Your task to perform on an android device: toggle pop-ups in chrome Image 0: 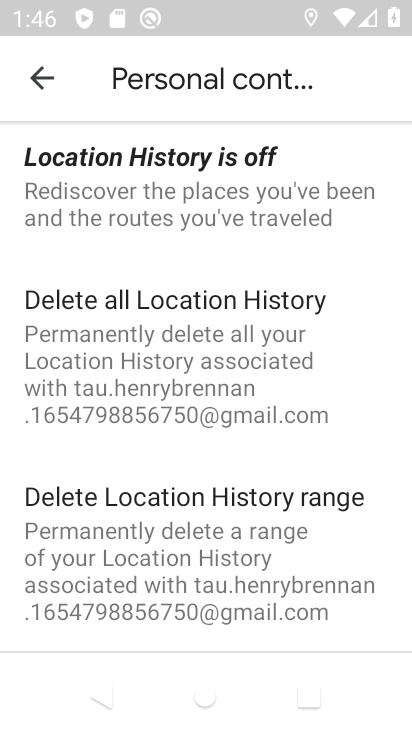
Step 0: press home button
Your task to perform on an android device: toggle pop-ups in chrome Image 1: 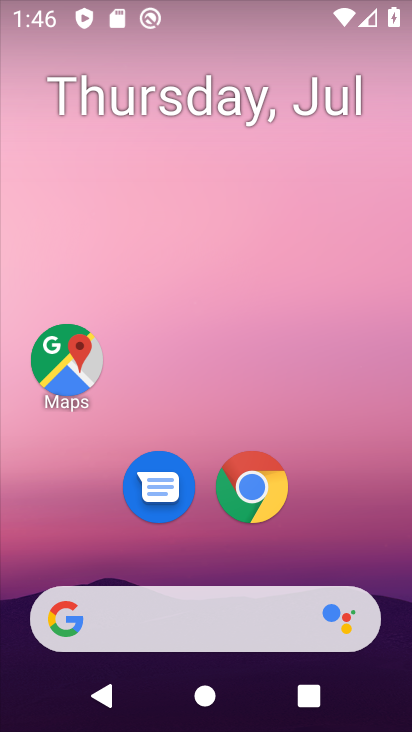
Step 1: drag from (357, 554) to (395, 99)
Your task to perform on an android device: toggle pop-ups in chrome Image 2: 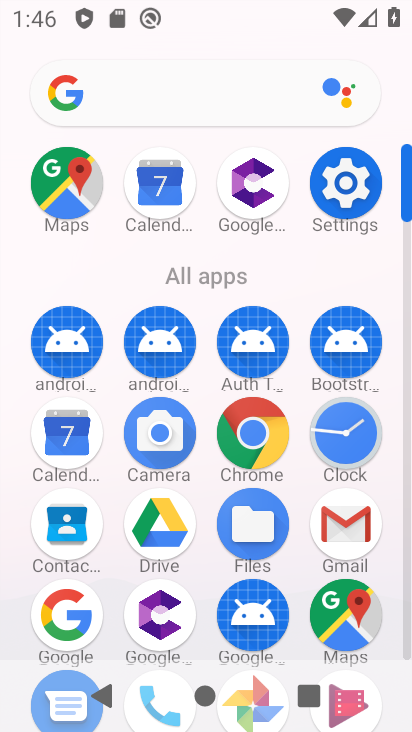
Step 2: click (257, 437)
Your task to perform on an android device: toggle pop-ups in chrome Image 3: 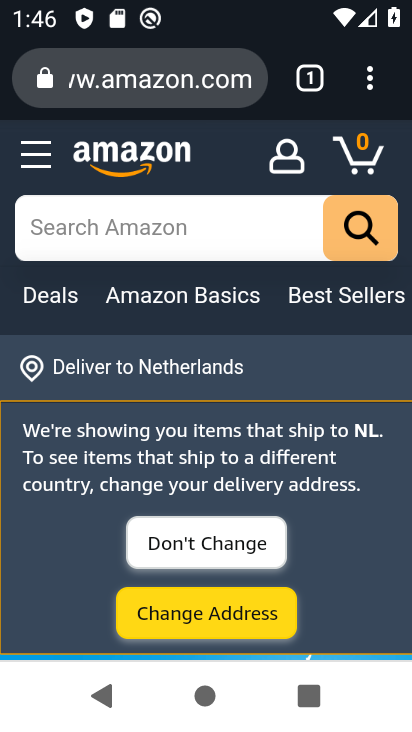
Step 3: click (372, 84)
Your task to perform on an android device: toggle pop-ups in chrome Image 4: 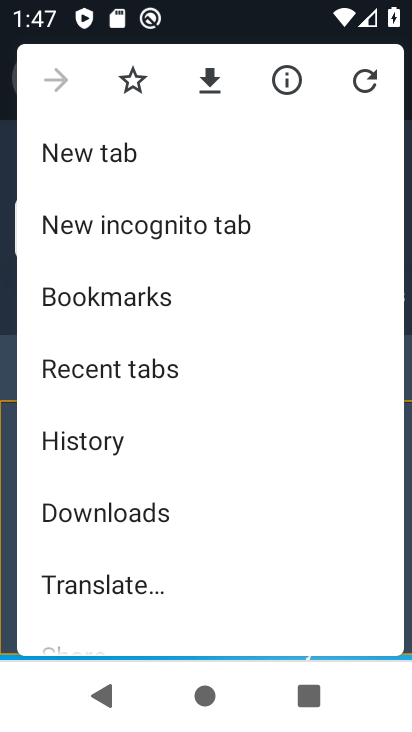
Step 4: drag from (340, 497) to (342, 414)
Your task to perform on an android device: toggle pop-ups in chrome Image 5: 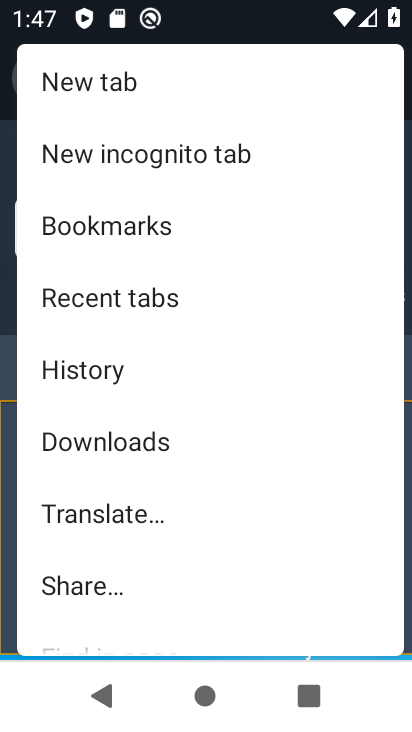
Step 5: drag from (335, 528) to (340, 446)
Your task to perform on an android device: toggle pop-ups in chrome Image 6: 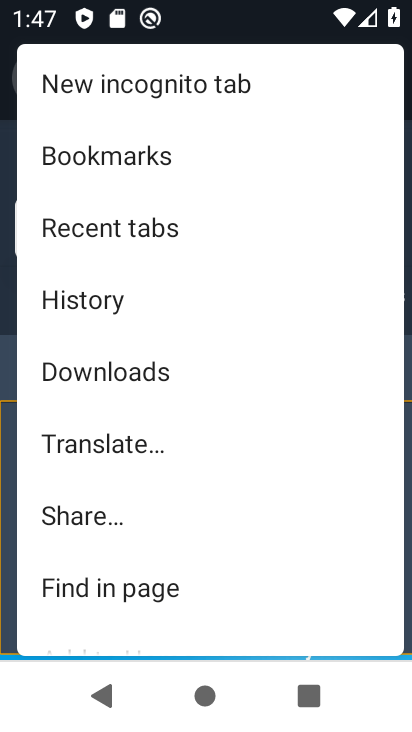
Step 6: drag from (278, 540) to (290, 468)
Your task to perform on an android device: toggle pop-ups in chrome Image 7: 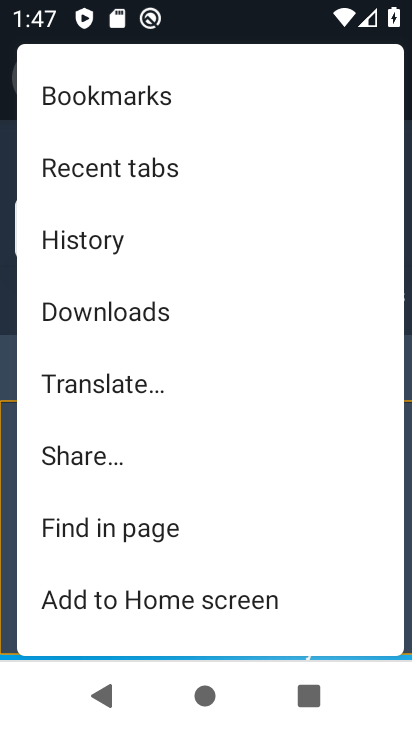
Step 7: drag from (326, 563) to (326, 462)
Your task to perform on an android device: toggle pop-ups in chrome Image 8: 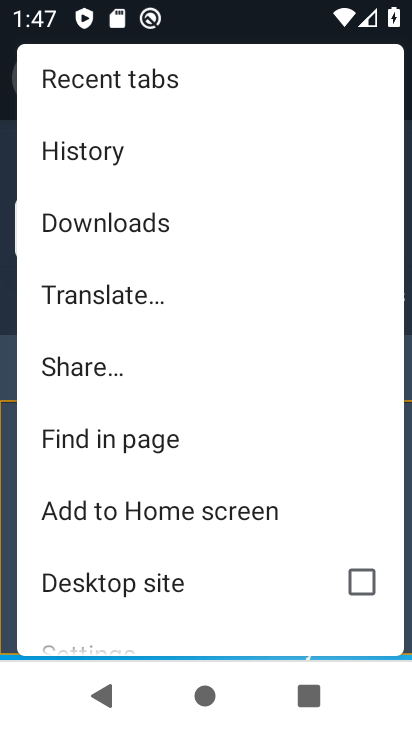
Step 8: drag from (306, 535) to (307, 400)
Your task to perform on an android device: toggle pop-ups in chrome Image 9: 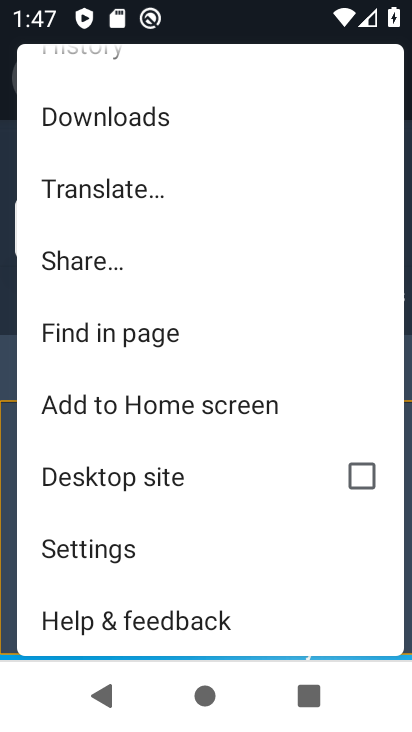
Step 9: click (126, 552)
Your task to perform on an android device: toggle pop-ups in chrome Image 10: 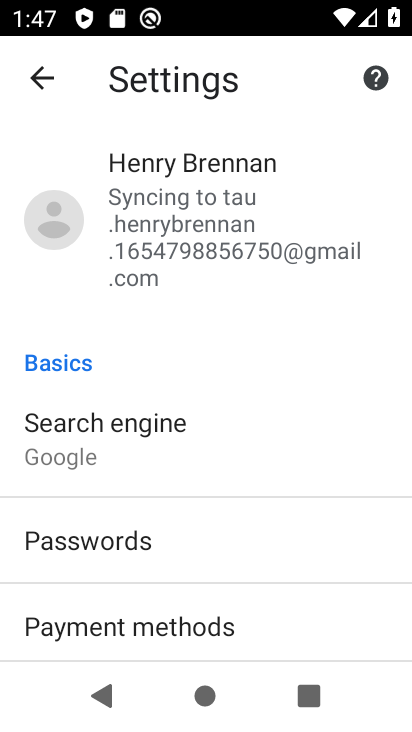
Step 10: drag from (274, 497) to (282, 369)
Your task to perform on an android device: toggle pop-ups in chrome Image 11: 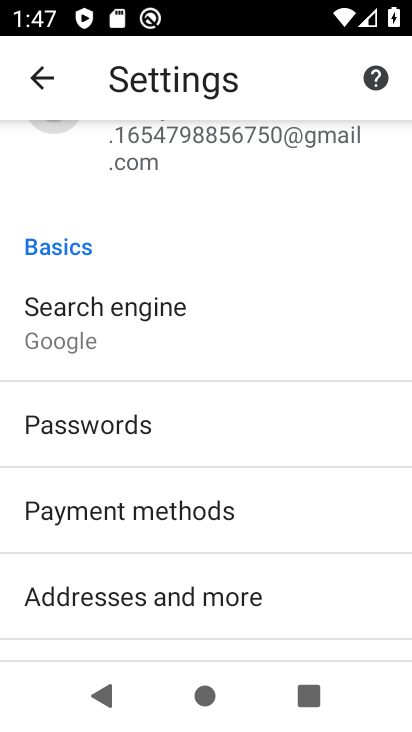
Step 11: drag from (333, 504) to (335, 423)
Your task to perform on an android device: toggle pop-ups in chrome Image 12: 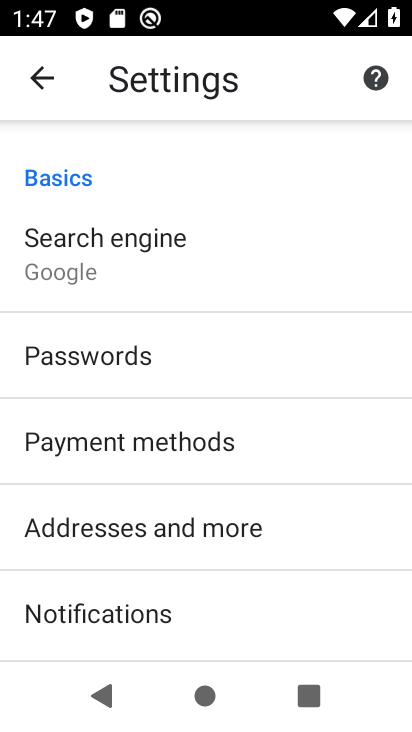
Step 12: drag from (328, 519) to (334, 421)
Your task to perform on an android device: toggle pop-ups in chrome Image 13: 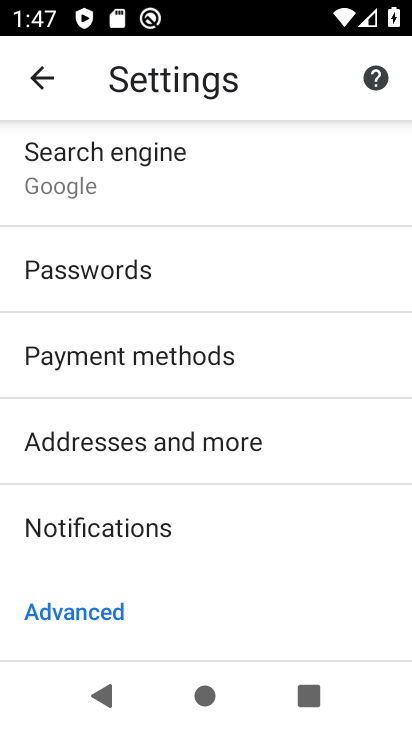
Step 13: drag from (336, 512) to (334, 390)
Your task to perform on an android device: toggle pop-ups in chrome Image 14: 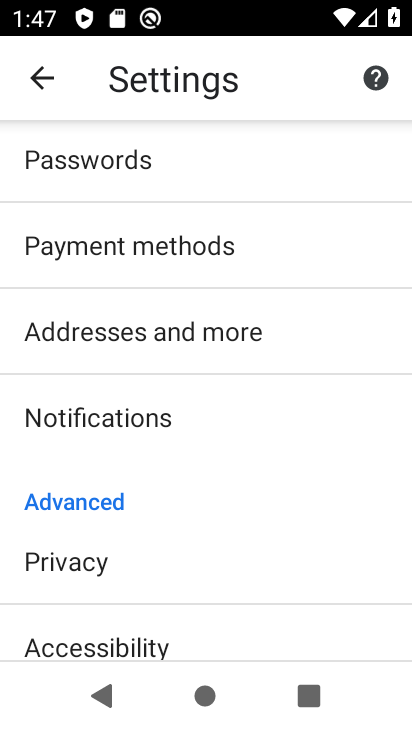
Step 14: drag from (337, 491) to (336, 344)
Your task to perform on an android device: toggle pop-ups in chrome Image 15: 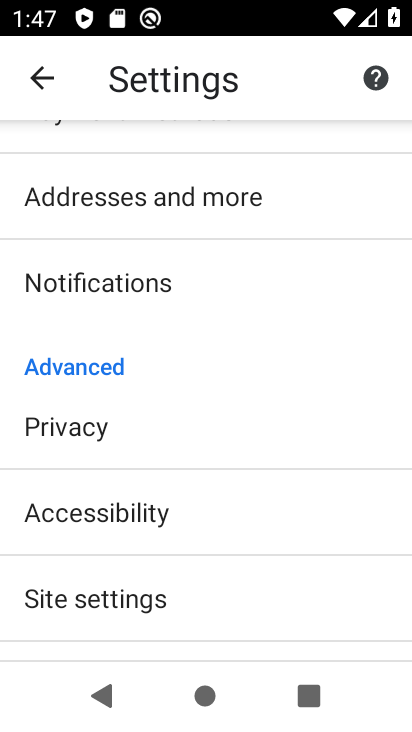
Step 15: drag from (327, 497) to (328, 277)
Your task to perform on an android device: toggle pop-ups in chrome Image 16: 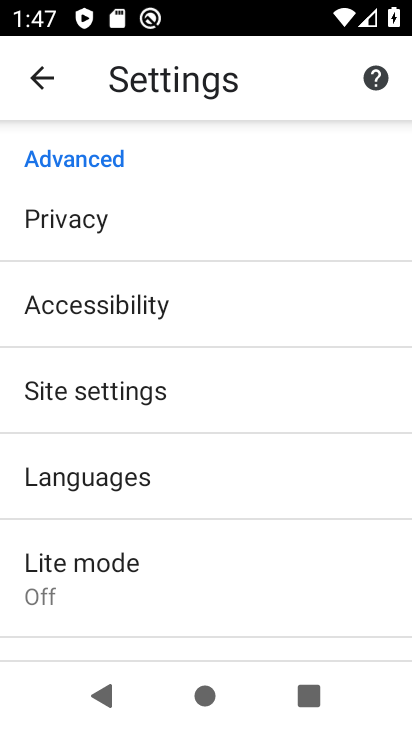
Step 16: click (263, 386)
Your task to perform on an android device: toggle pop-ups in chrome Image 17: 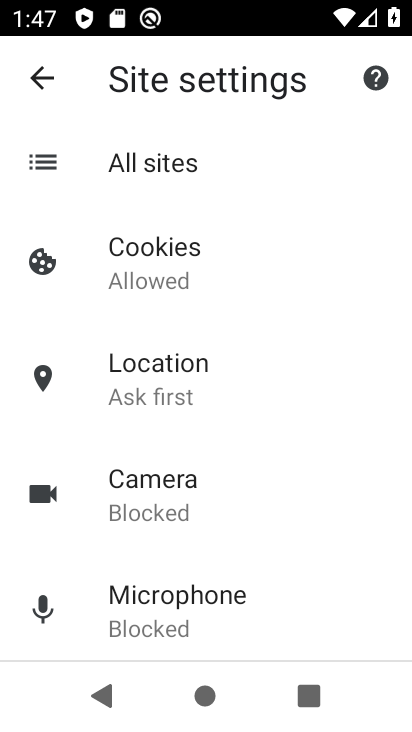
Step 17: drag from (304, 449) to (322, 288)
Your task to perform on an android device: toggle pop-ups in chrome Image 18: 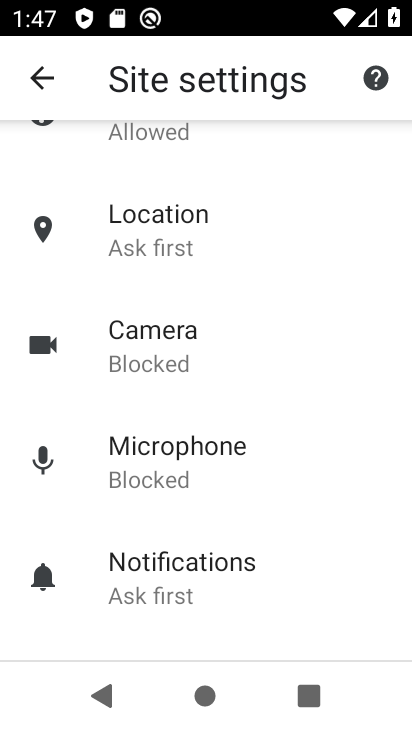
Step 18: drag from (325, 464) to (332, 330)
Your task to perform on an android device: toggle pop-ups in chrome Image 19: 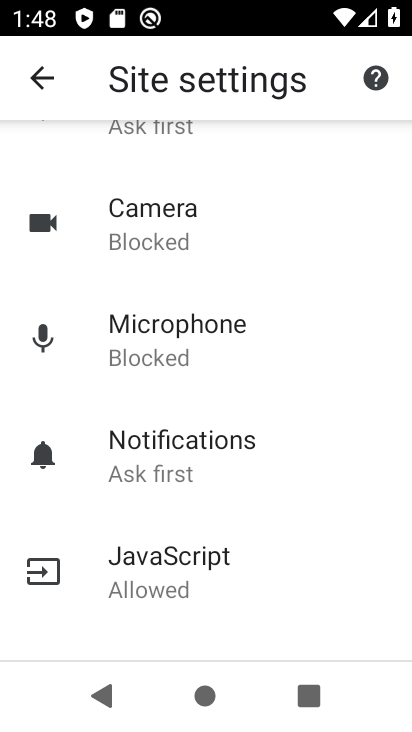
Step 19: drag from (332, 468) to (343, 366)
Your task to perform on an android device: toggle pop-ups in chrome Image 20: 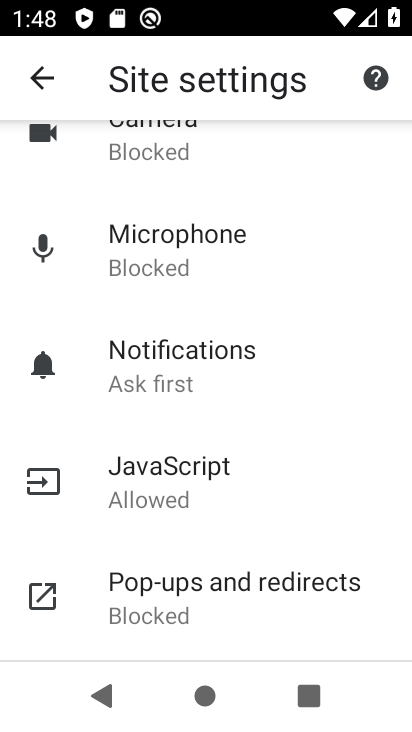
Step 20: drag from (343, 475) to (353, 358)
Your task to perform on an android device: toggle pop-ups in chrome Image 21: 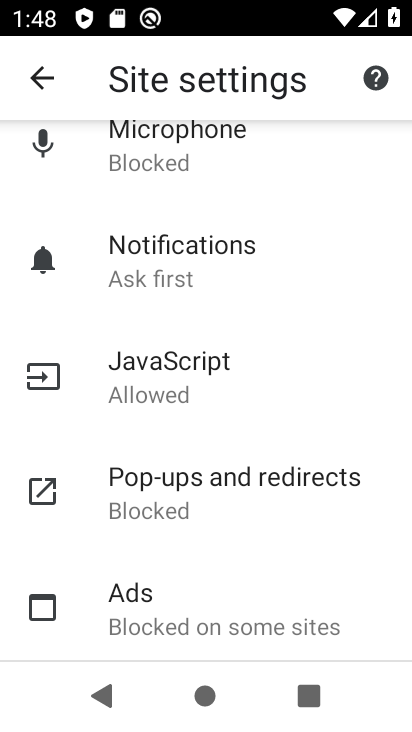
Step 21: drag from (352, 497) to (356, 369)
Your task to perform on an android device: toggle pop-ups in chrome Image 22: 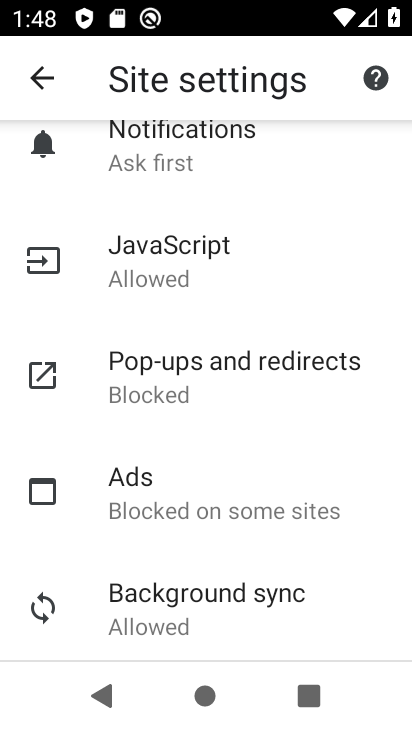
Step 22: click (298, 374)
Your task to perform on an android device: toggle pop-ups in chrome Image 23: 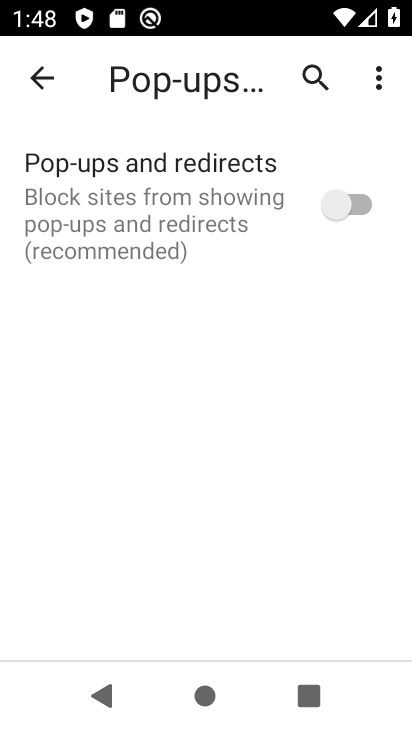
Step 23: click (340, 207)
Your task to perform on an android device: toggle pop-ups in chrome Image 24: 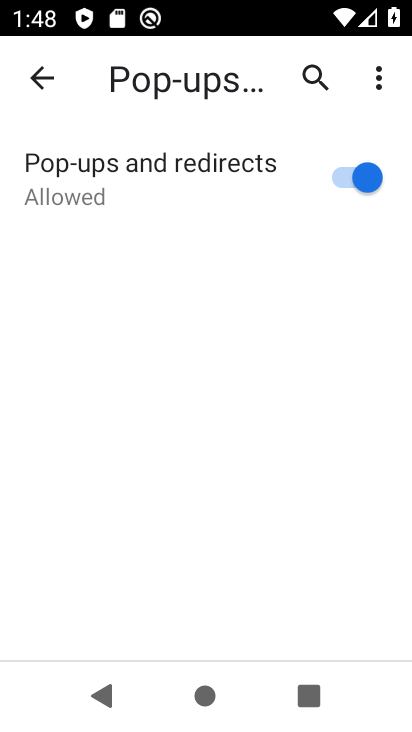
Step 24: task complete